Your task to perform on an android device: turn on the 12-hour format for clock Image 0: 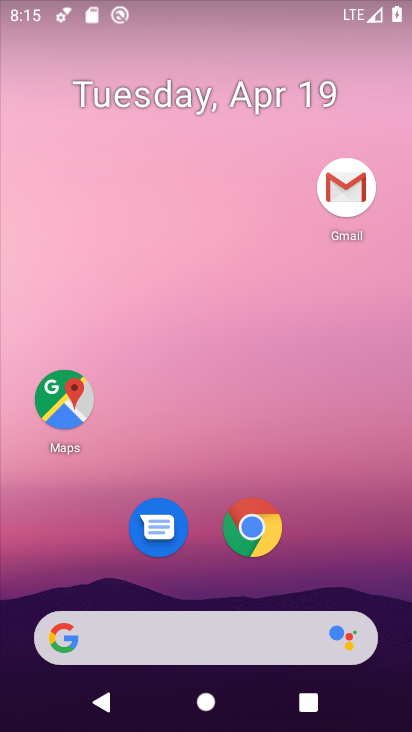
Step 0: drag from (381, 550) to (334, 168)
Your task to perform on an android device: turn on the 12-hour format for clock Image 1: 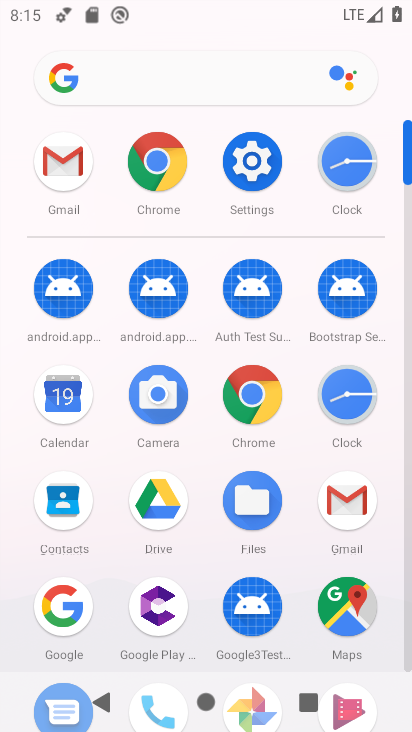
Step 1: click (356, 408)
Your task to perform on an android device: turn on the 12-hour format for clock Image 2: 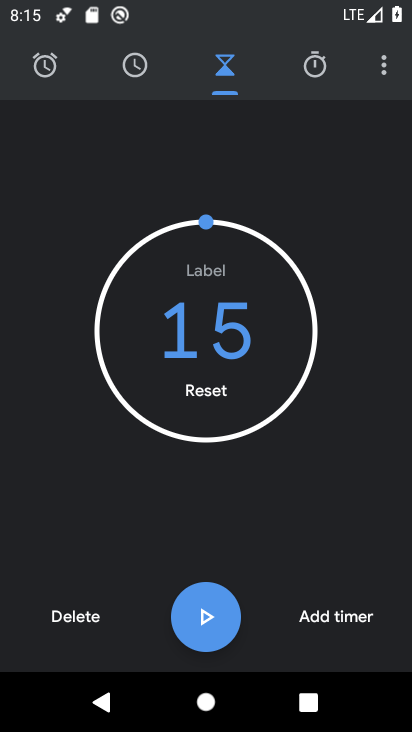
Step 2: click (388, 80)
Your task to perform on an android device: turn on the 12-hour format for clock Image 3: 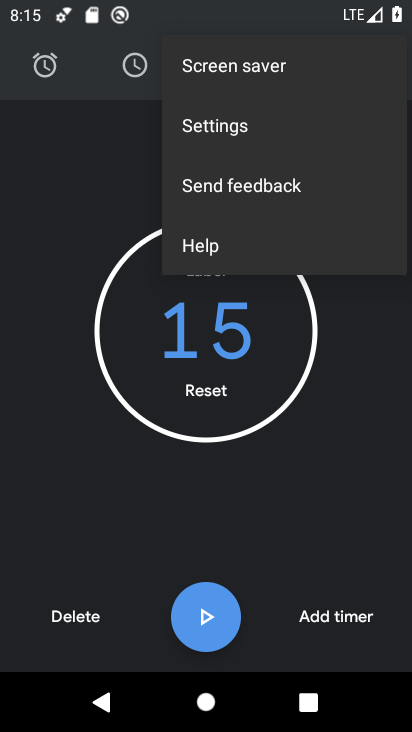
Step 3: click (229, 126)
Your task to perform on an android device: turn on the 12-hour format for clock Image 4: 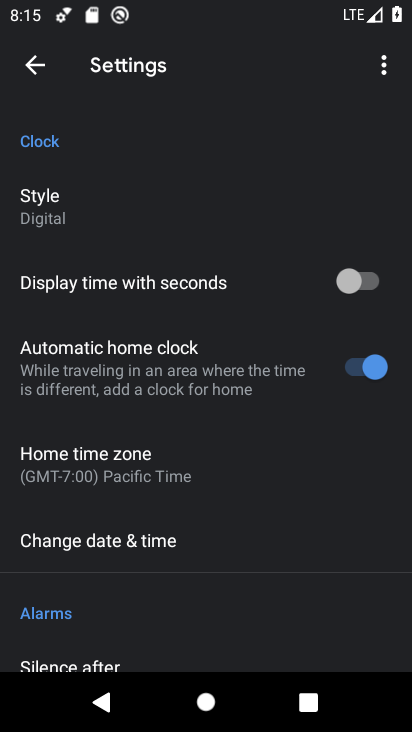
Step 4: click (135, 543)
Your task to perform on an android device: turn on the 12-hour format for clock Image 5: 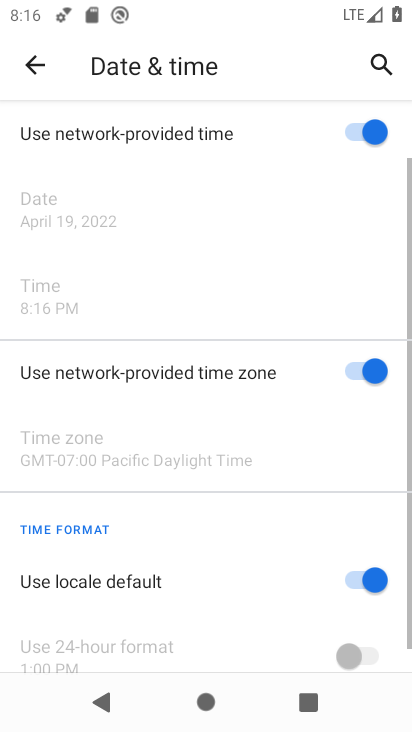
Step 5: task complete